Your task to perform on an android device: Open CNN.com Image 0: 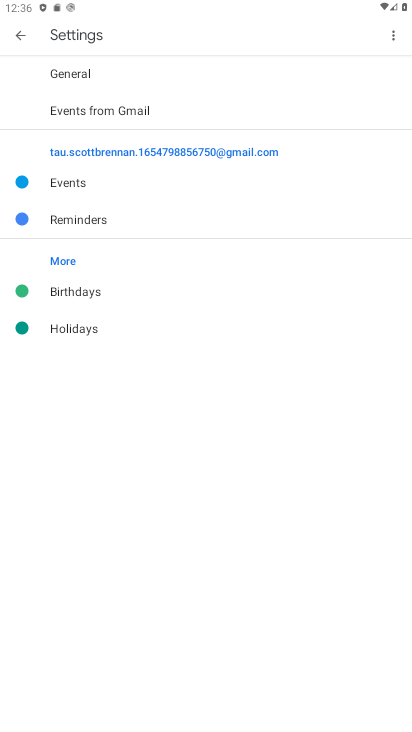
Step 0: press home button
Your task to perform on an android device: Open CNN.com Image 1: 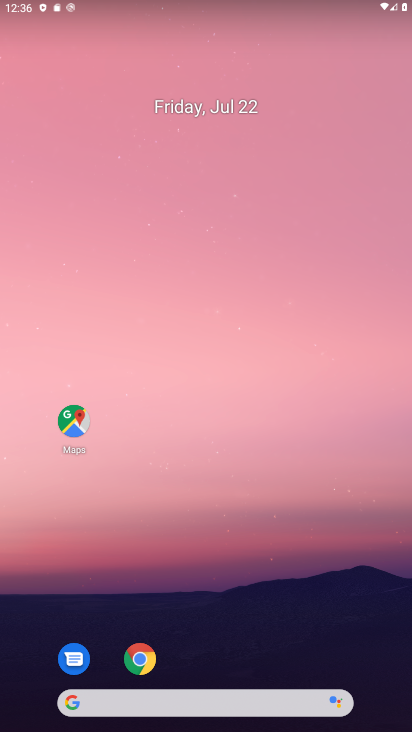
Step 1: drag from (225, 670) to (236, 12)
Your task to perform on an android device: Open CNN.com Image 2: 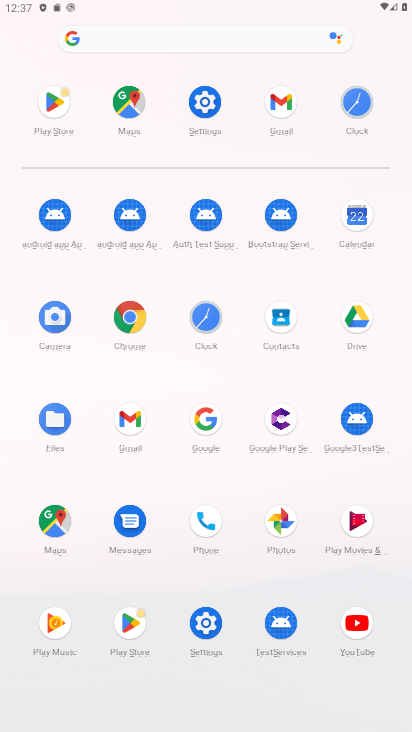
Step 2: click (362, 612)
Your task to perform on an android device: Open CNN.com Image 3: 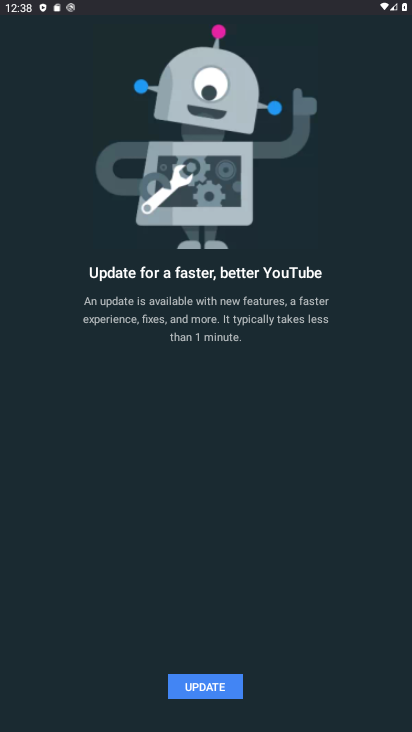
Step 3: task complete